Your task to perform on an android device: Show me popular videos on Youtube Image 0: 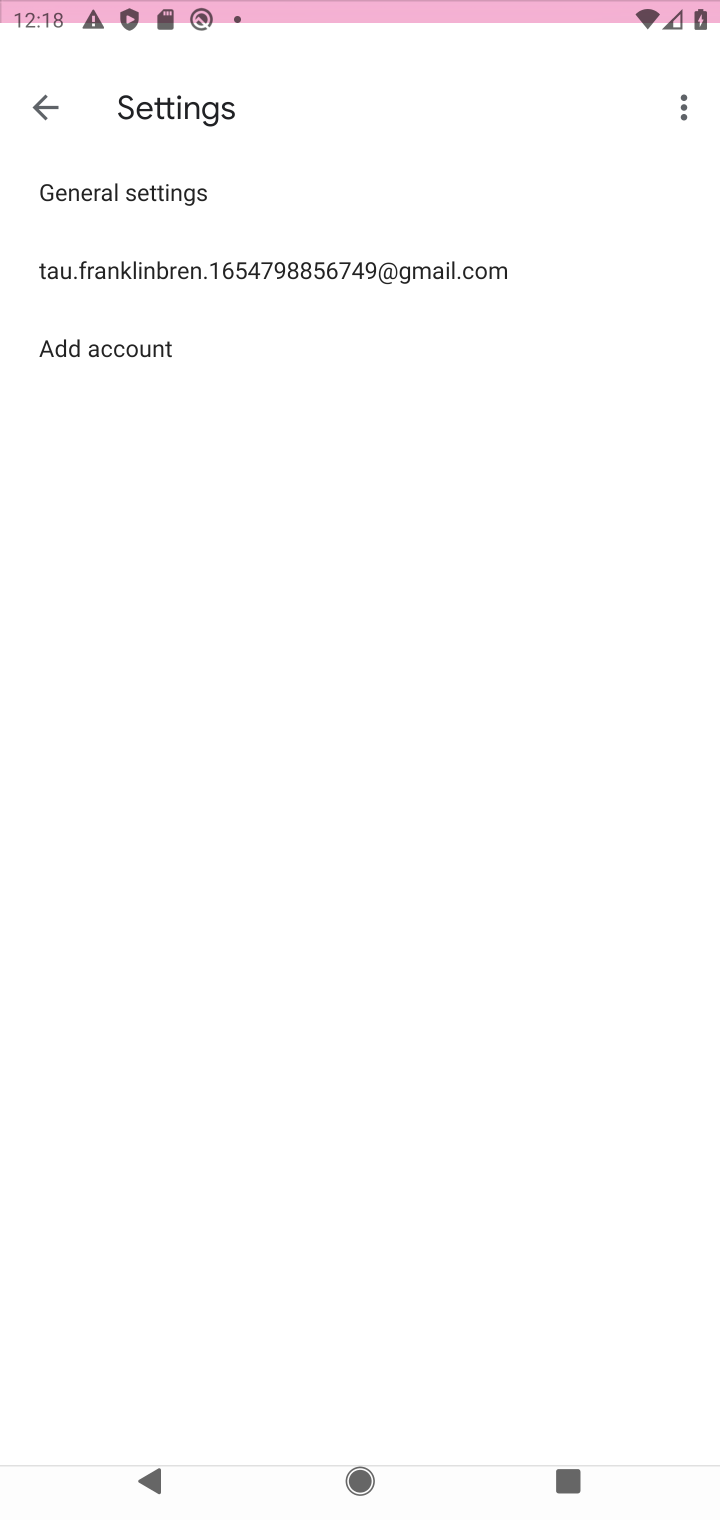
Step 0: press home button
Your task to perform on an android device: Show me popular videos on Youtube Image 1: 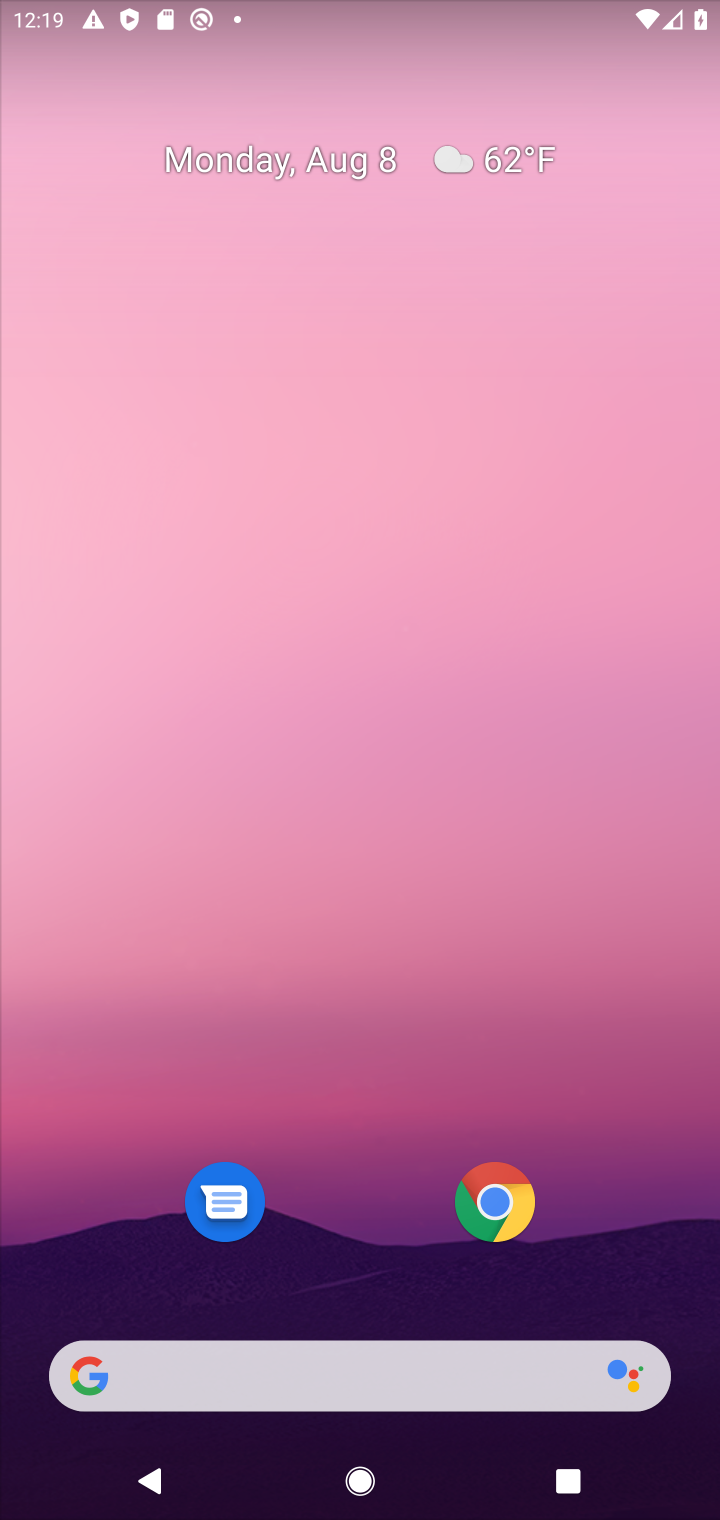
Step 1: drag from (363, 305) to (416, 92)
Your task to perform on an android device: Show me popular videos on Youtube Image 2: 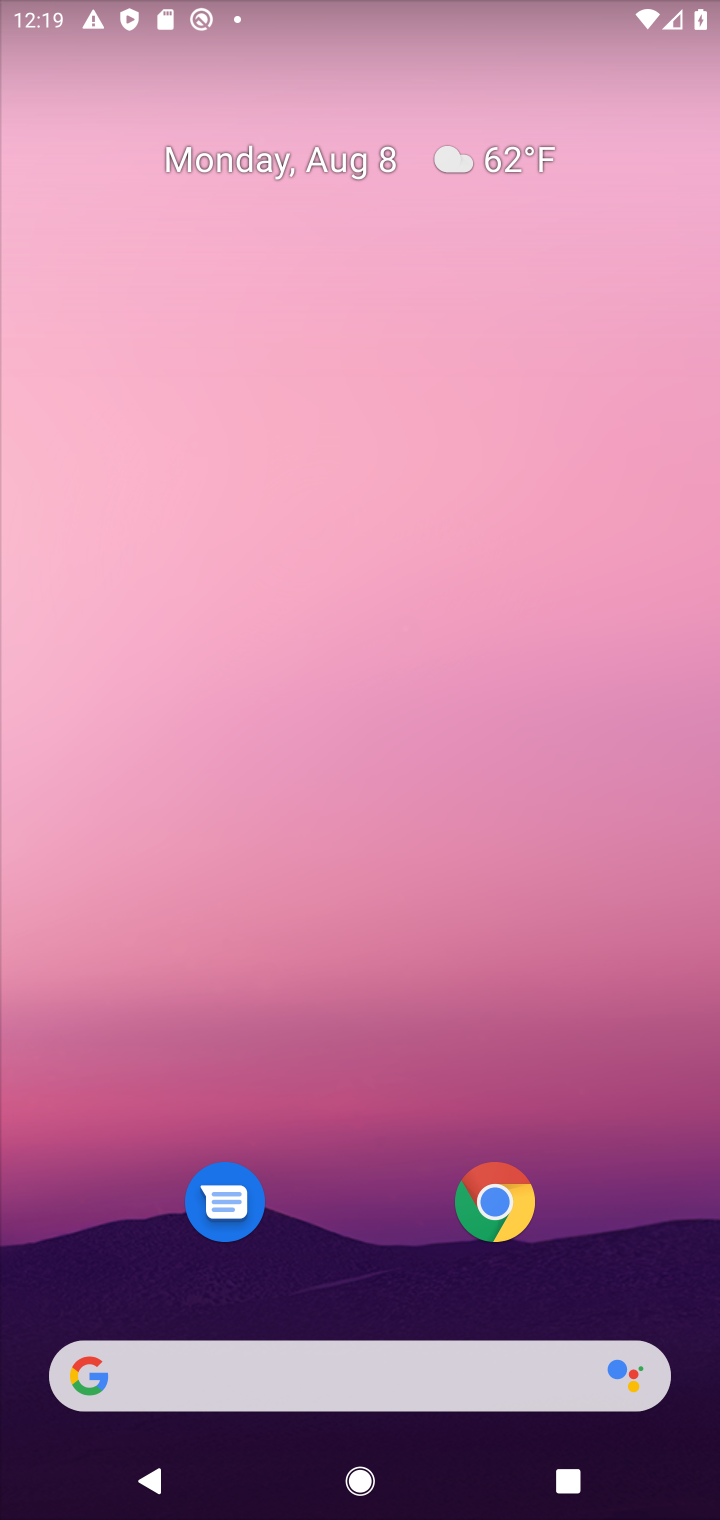
Step 2: drag from (418, 603) to (529, 61)
Your task to perform on an android device: Show me popular videos on Youtube Image 3: 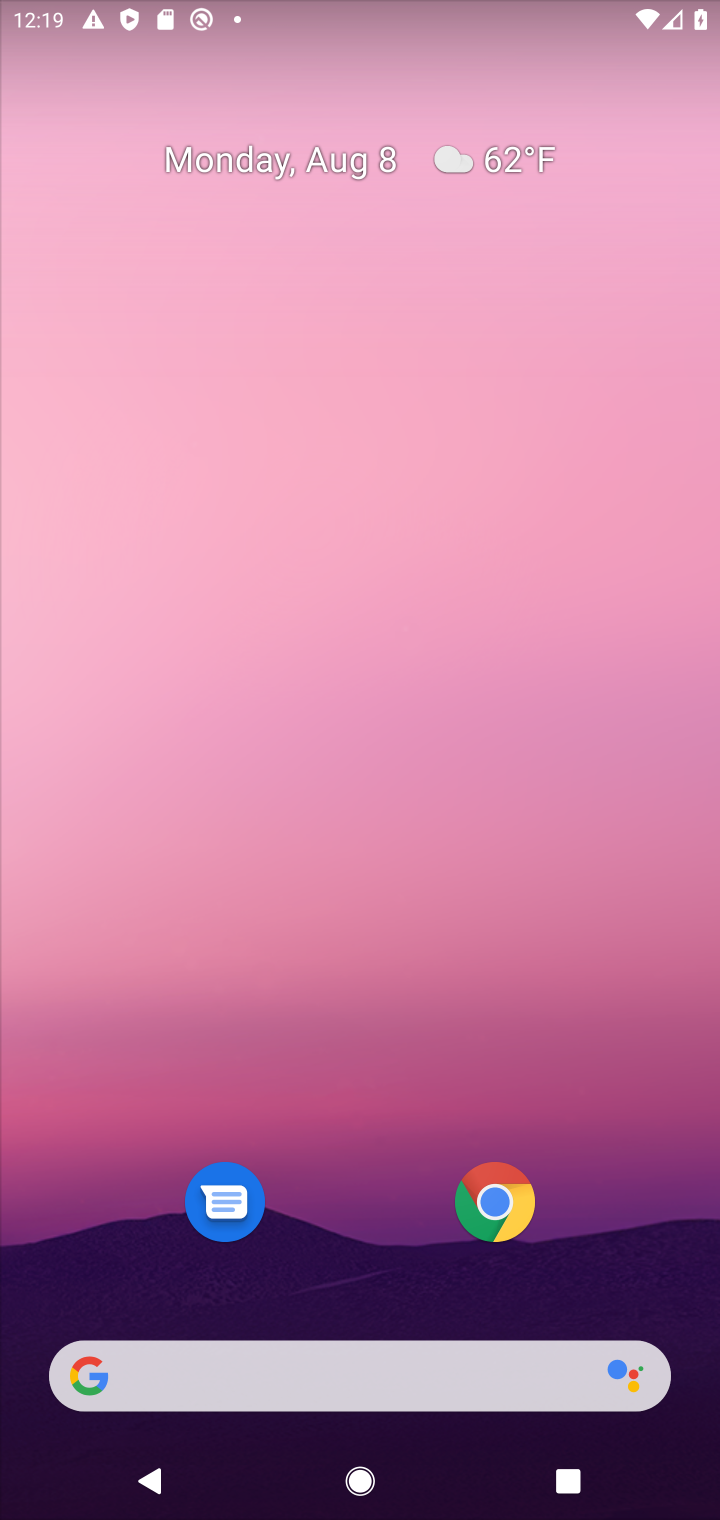
Step 3: click (327, 12)
Your task to perform on an android device: Show me popular videos on Youtube Image 4: 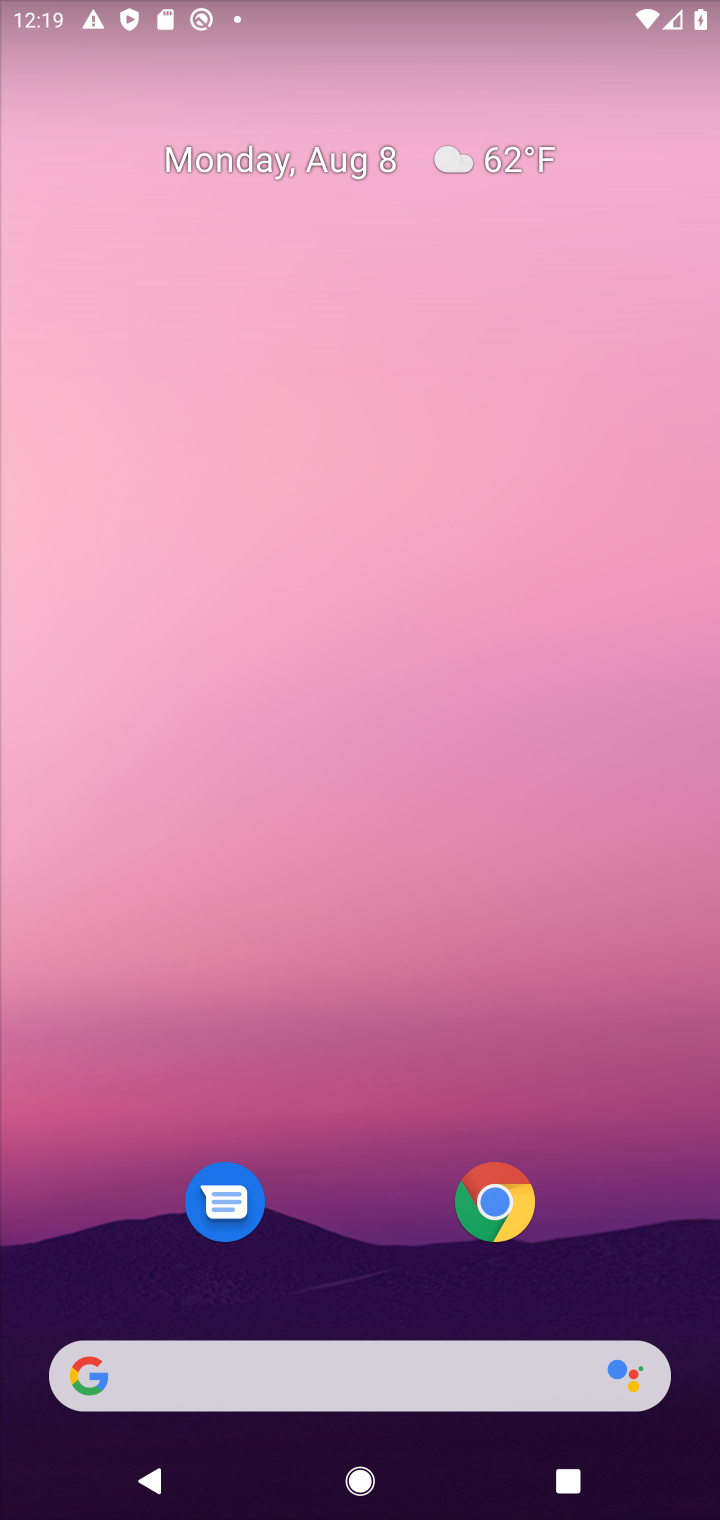
Step 4: drag from (348, 0) to (350, 123)
Your task to perform on an android device: Show me popular videos on Youtube Image 5: 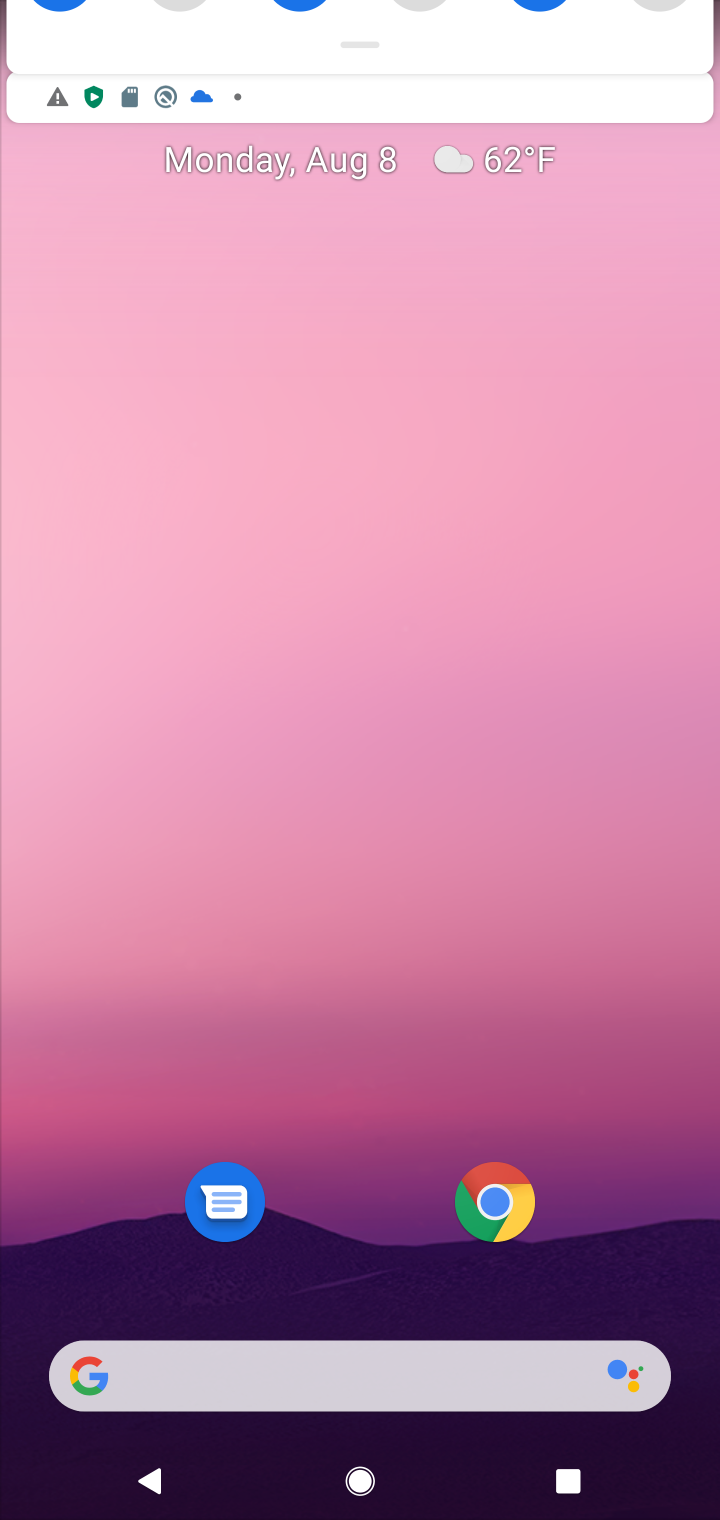
Step 5: drag from (331, 1101) to (333, 75)
Your task to perform on an android device: Show me popular videos on Youtube Image 6: 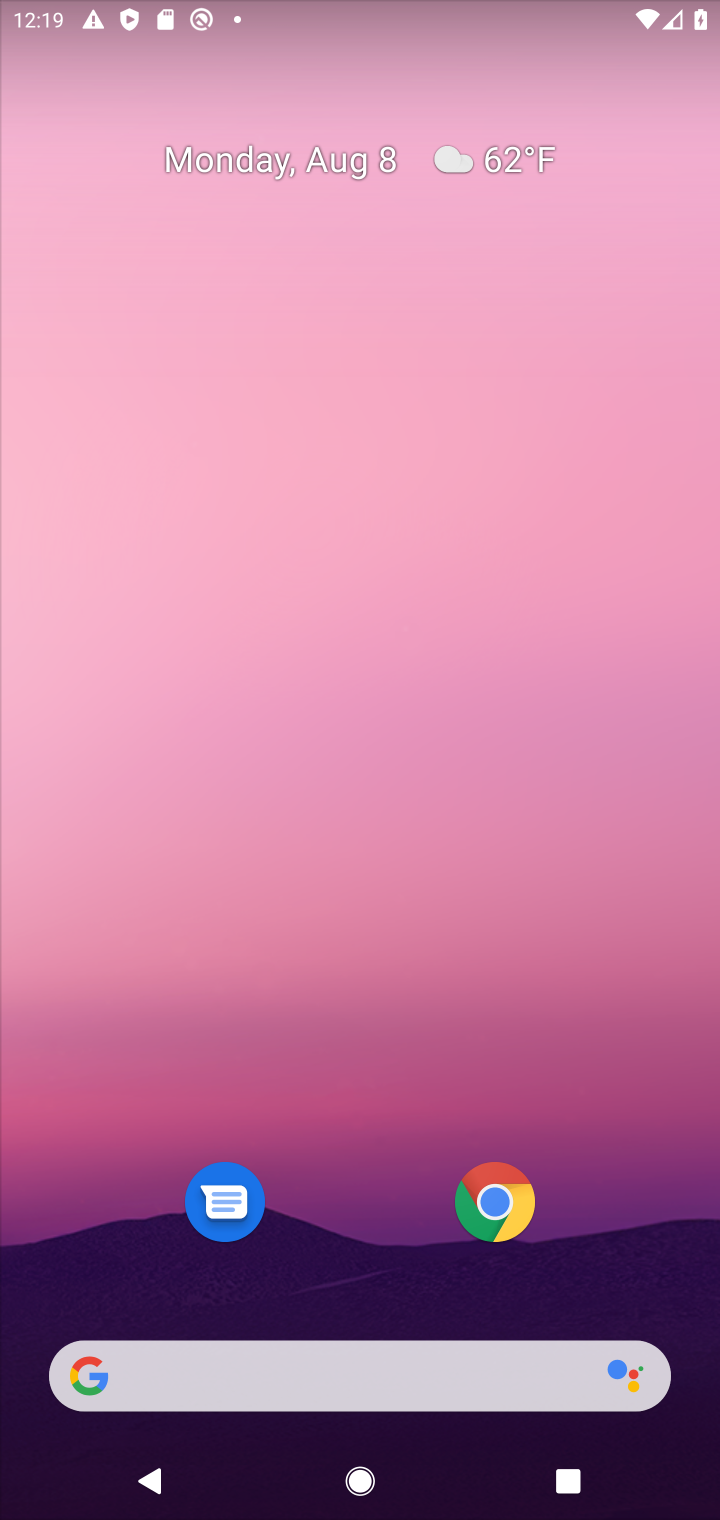
Step 6: drag from (367, 1226) to (350, 67)
Your task to perform on an android device: Show me popular videos on Youtube Image 7: 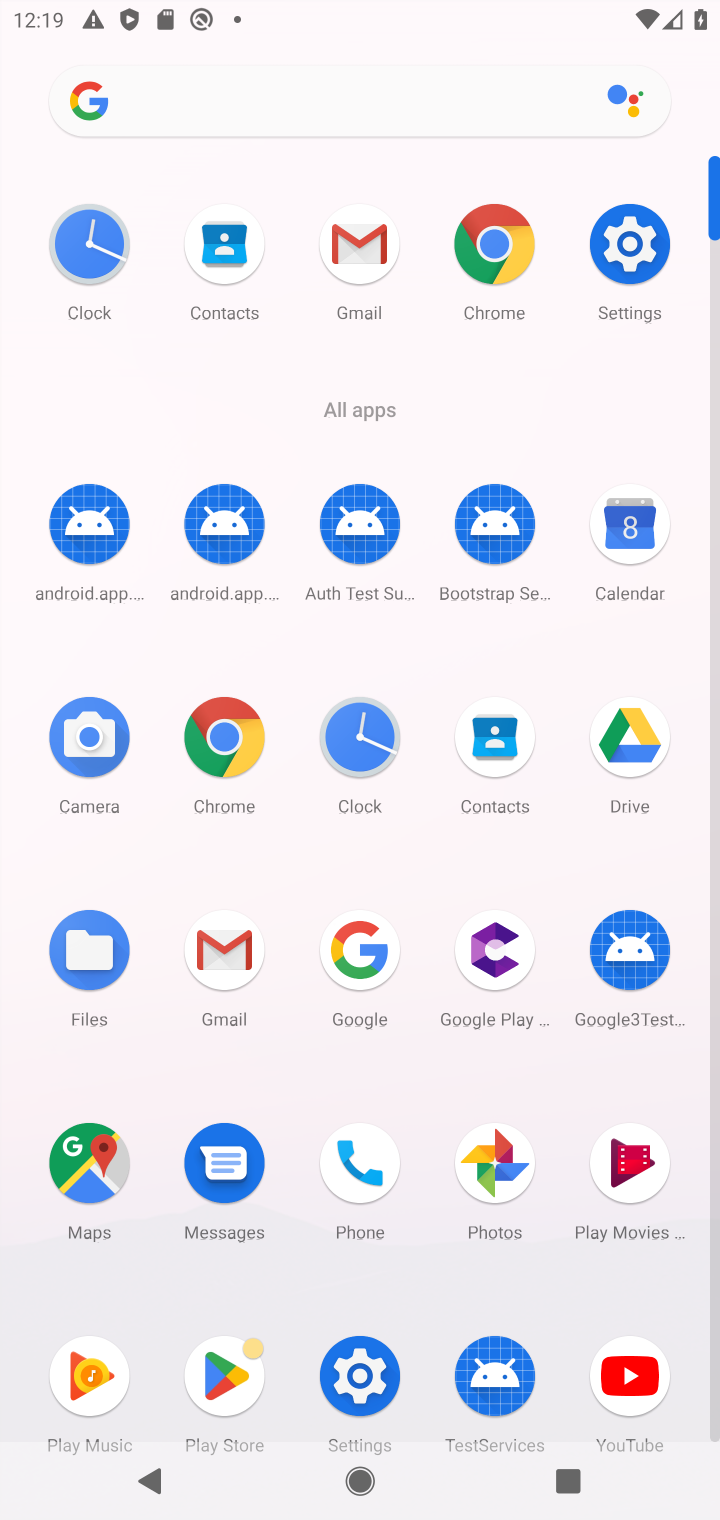
Step 7: click (219, 992)
Your task to perform on an android device: Show me popular videos on Youtube Image 8: 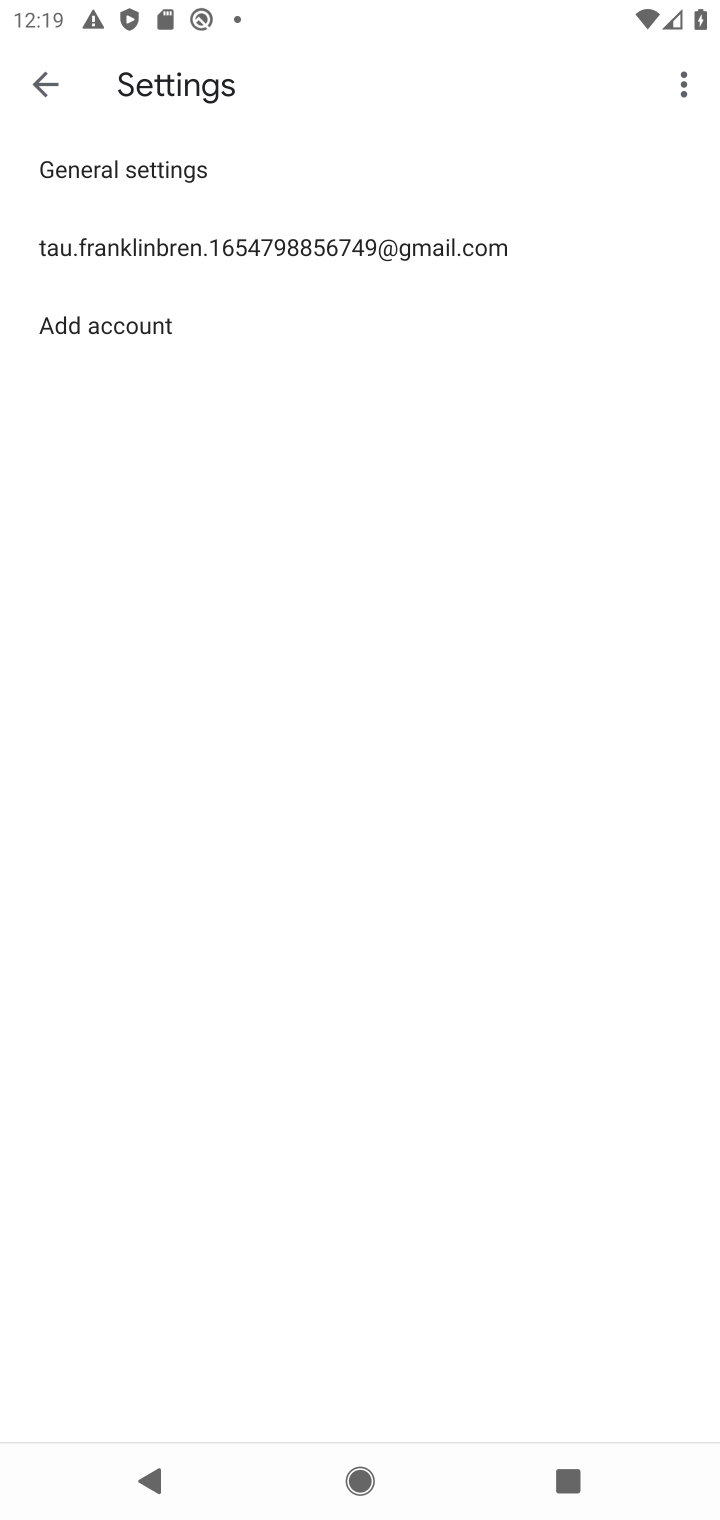
Step 8: press back button
Your task to perform on an android device: Show me popular videos on Youtube Image 9: 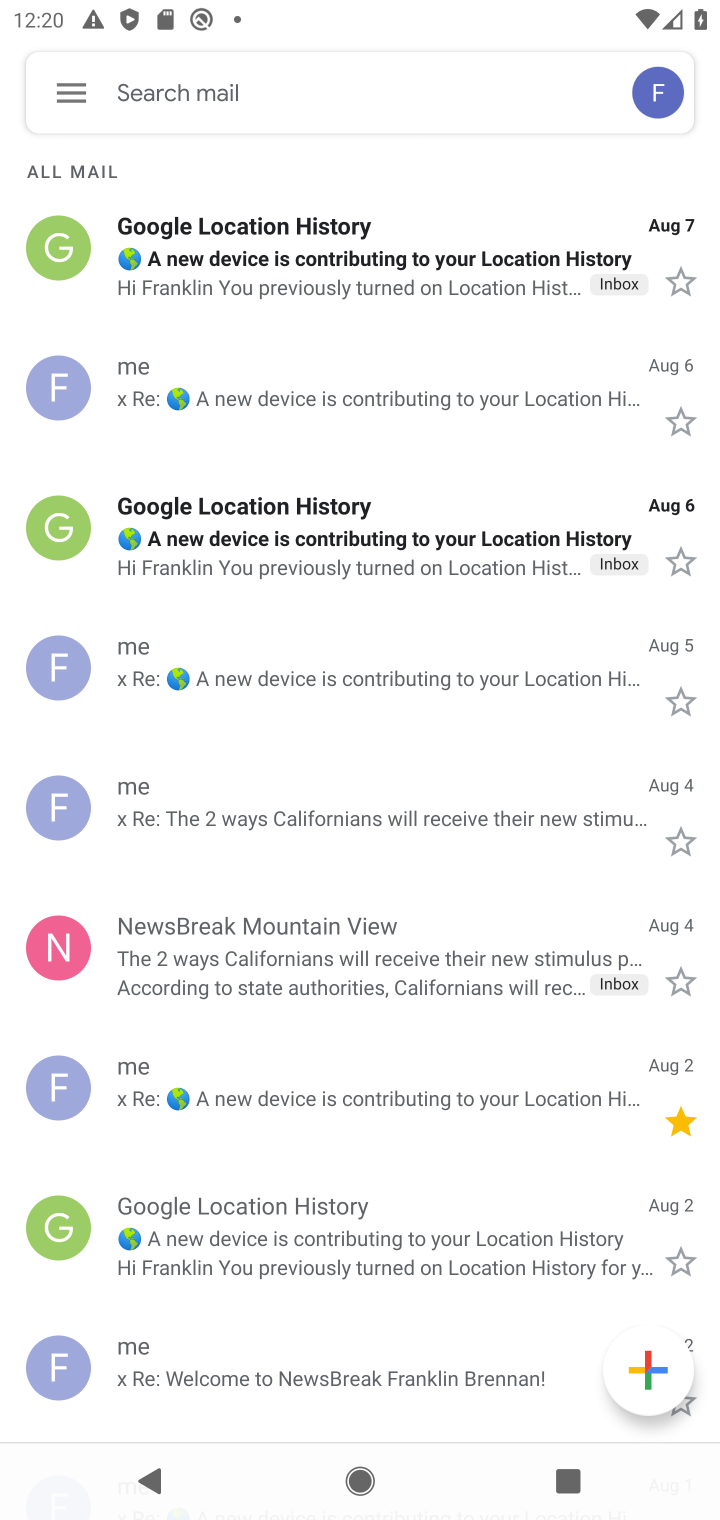
Step 9: press home button
Your task to perform on an android device: Show me popular videos on Youtube Image 10: 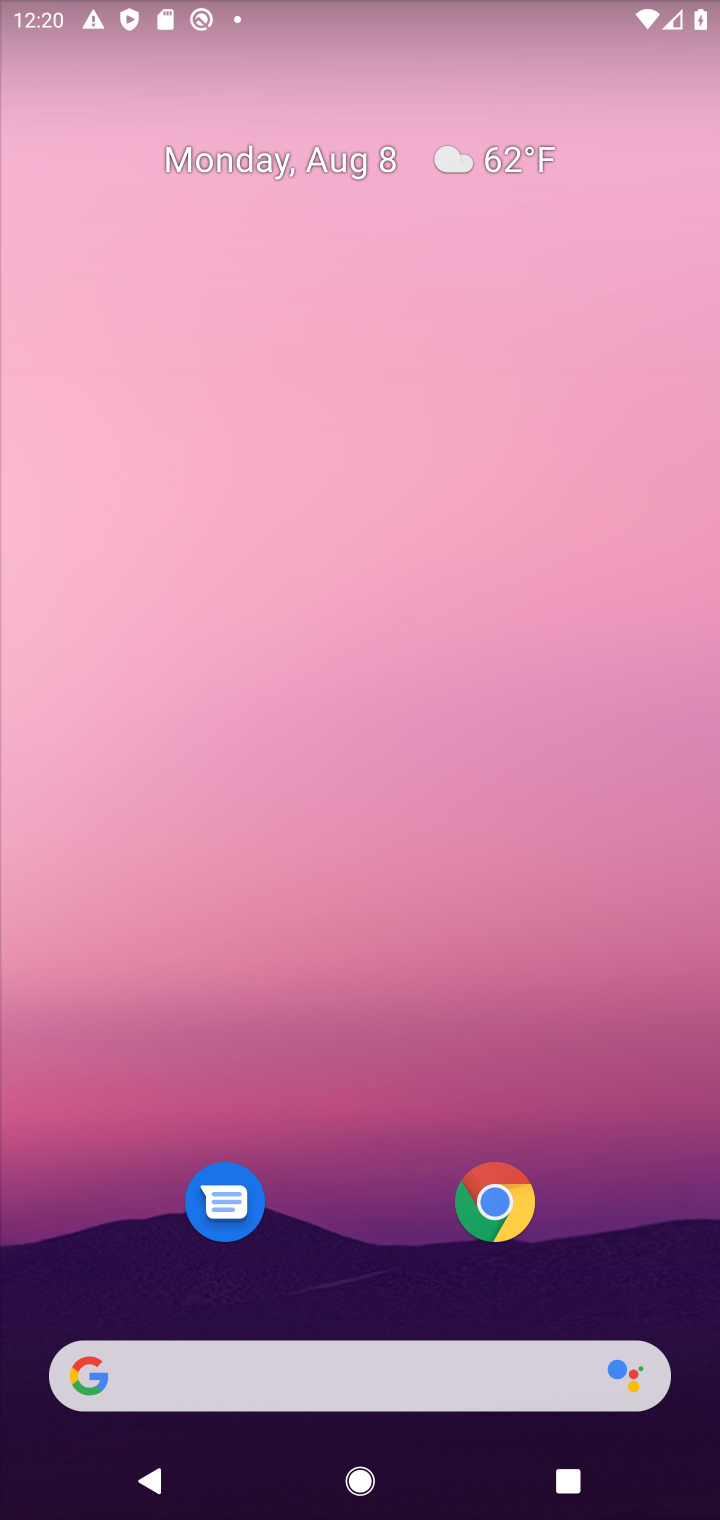
Step 10: drag from (374, 509) to (459, 119)
Your task to perform on an android device: Show me popular videos on Youtube Image 11: 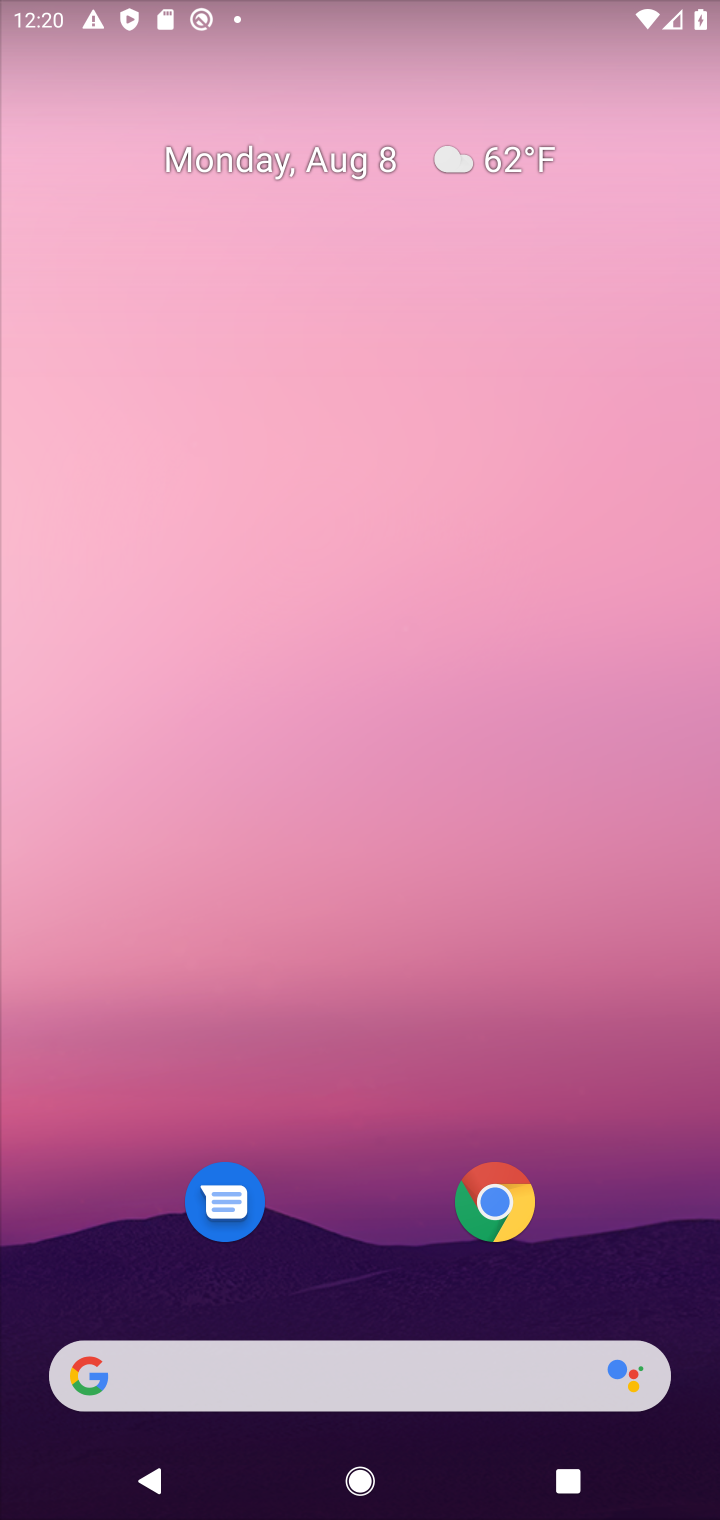
Step 11: drag from (318, 1) to (271, 52)
Your task to perform on an android device: Show me popular videos on Youtube Image 12: 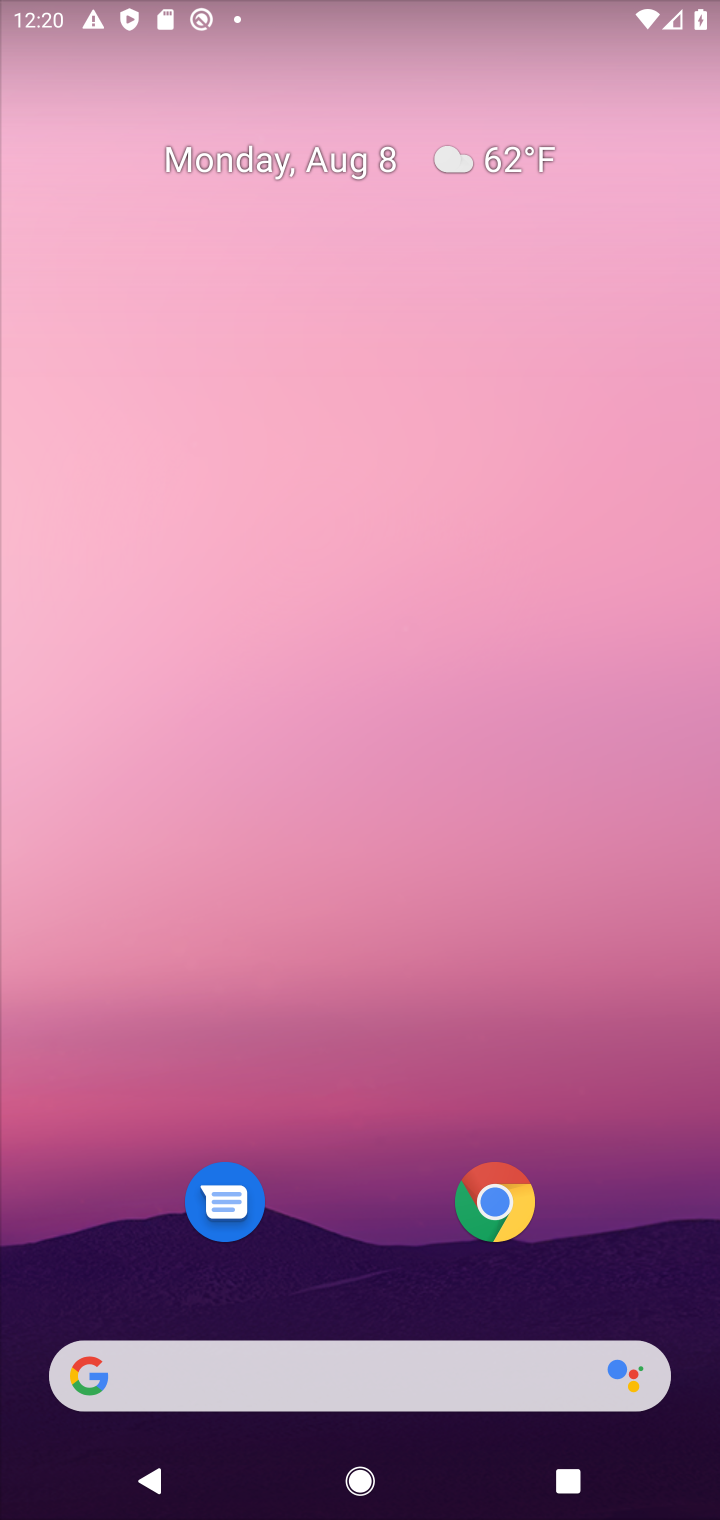
Step 12: drag from (373, 489) to (297, 118)
Your task to perform on an android device: Show me popular videos on Youtube Image 13: 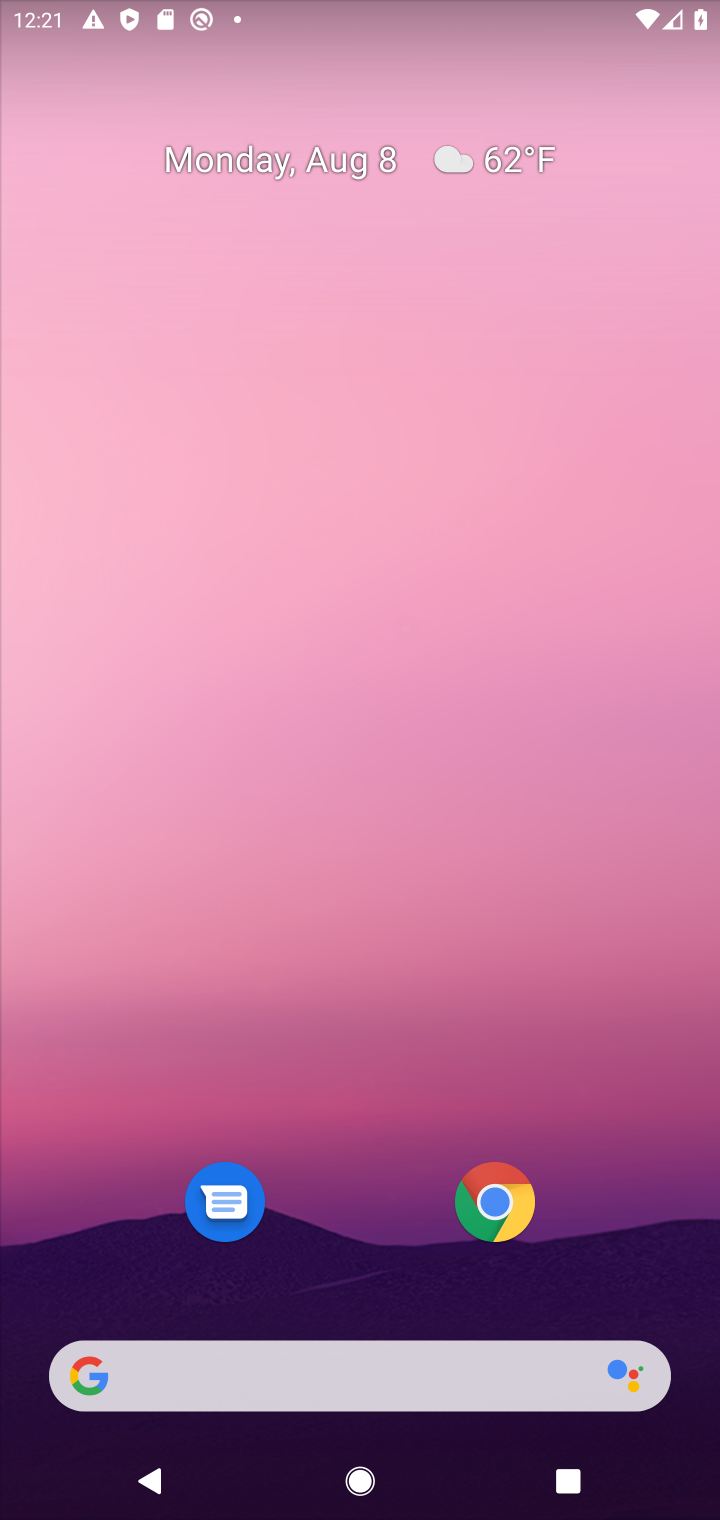
Step 13: click (330, 391)
Your task to perform on an android device: Show me popular videos on Youtube Image 14: 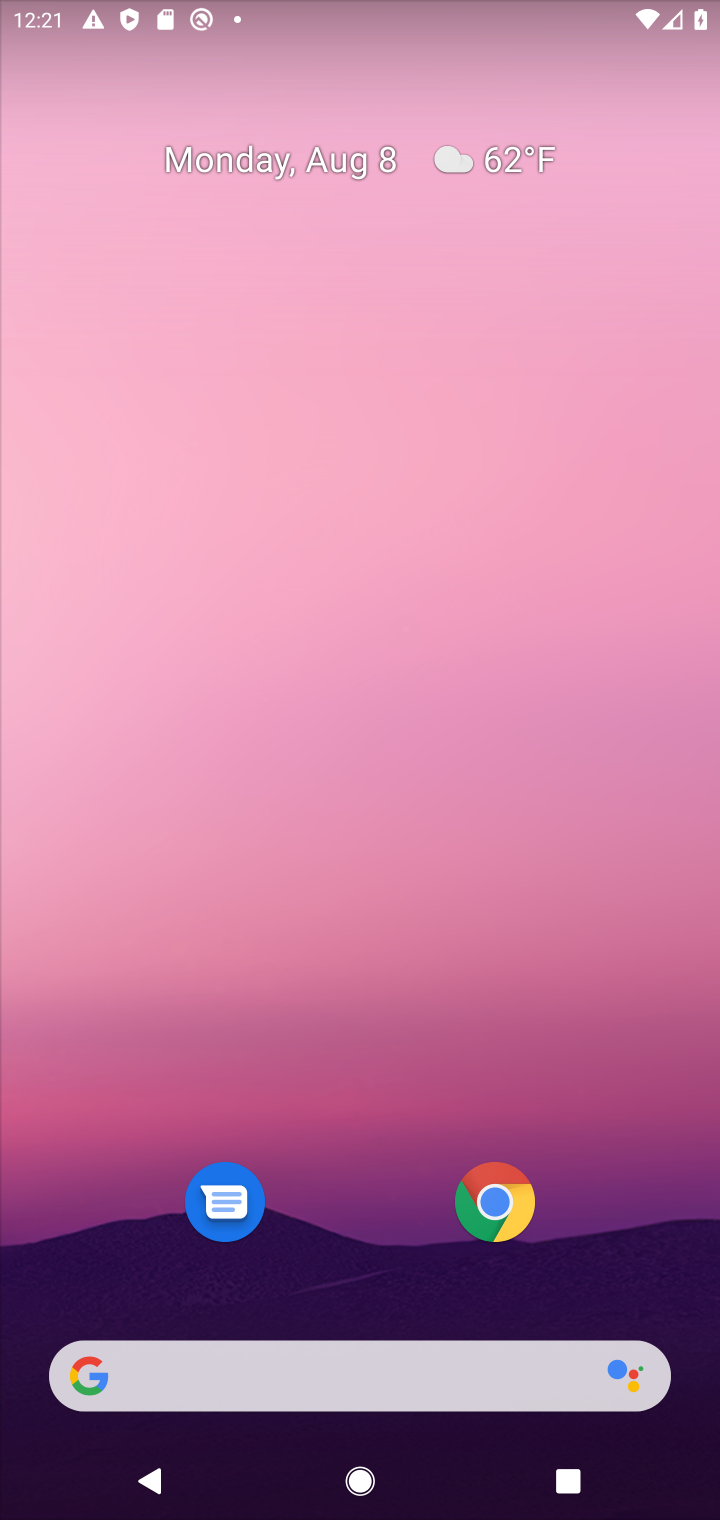
Step 14: drag from (371, 970) to (308, 63)
Your task to perform on an android device: Show me popular videos on Youtube Image 15: 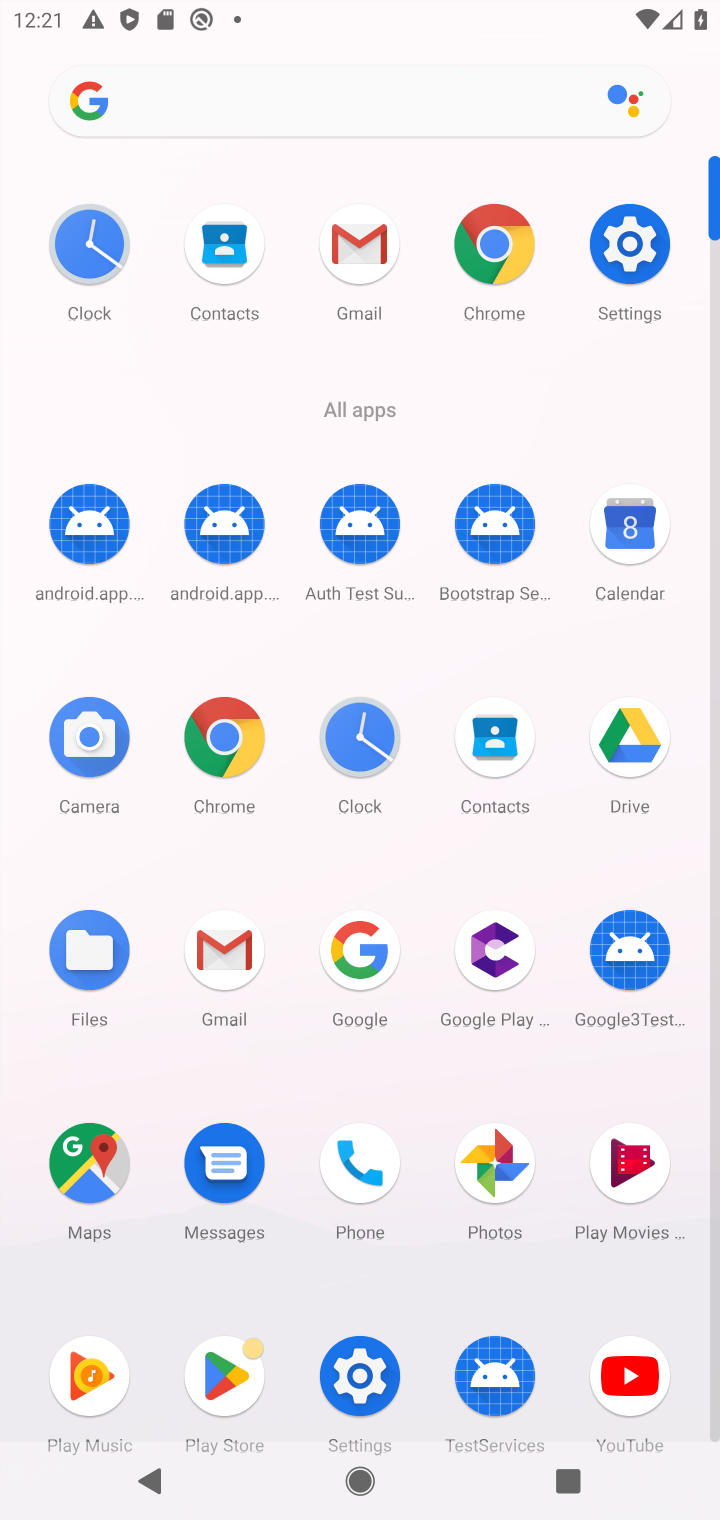
Step 15: click (626, 1386)
Your task to perform on an android device: Show me popular videos on Youtube Image 16: 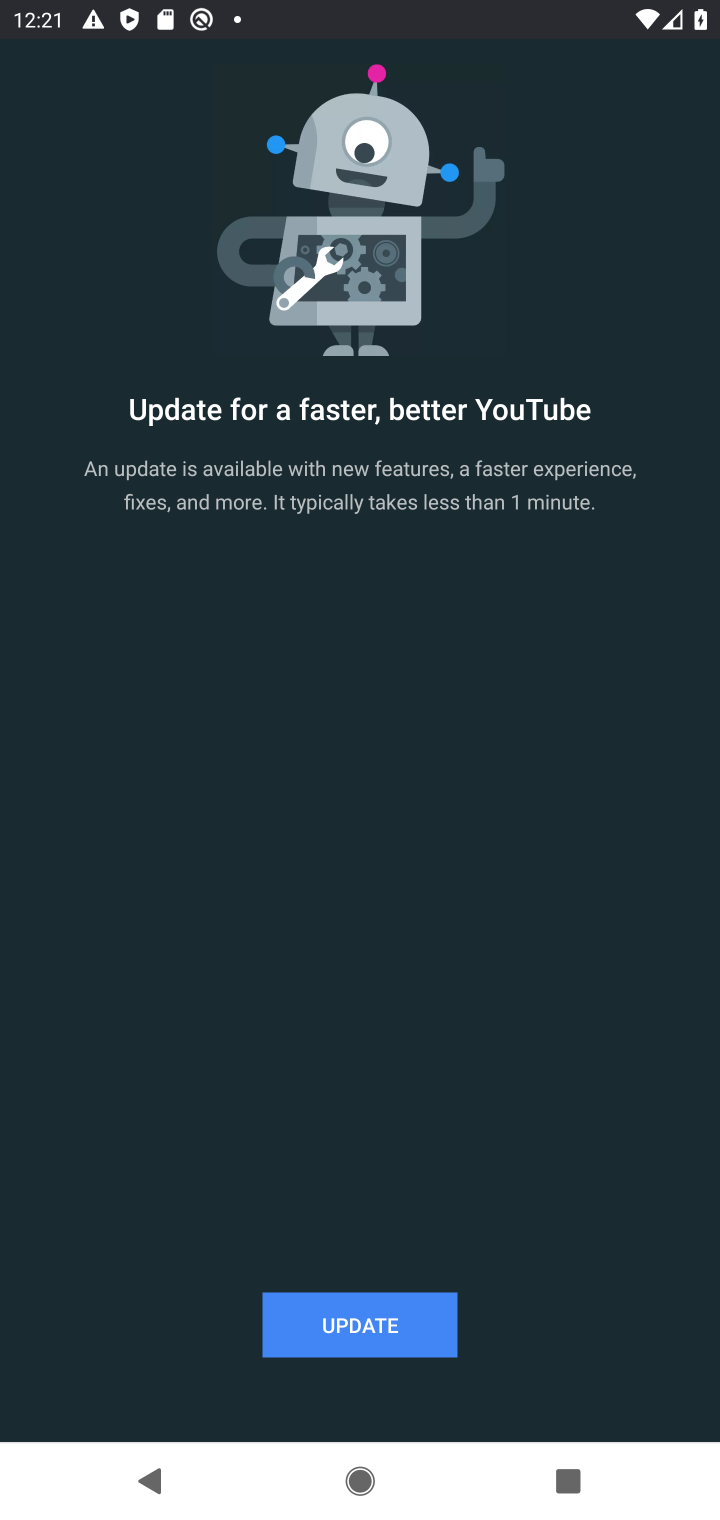
Step 16: click (406, 1330)
Your task to perform on an android device: Show me popular videos on Youtube Image 17: 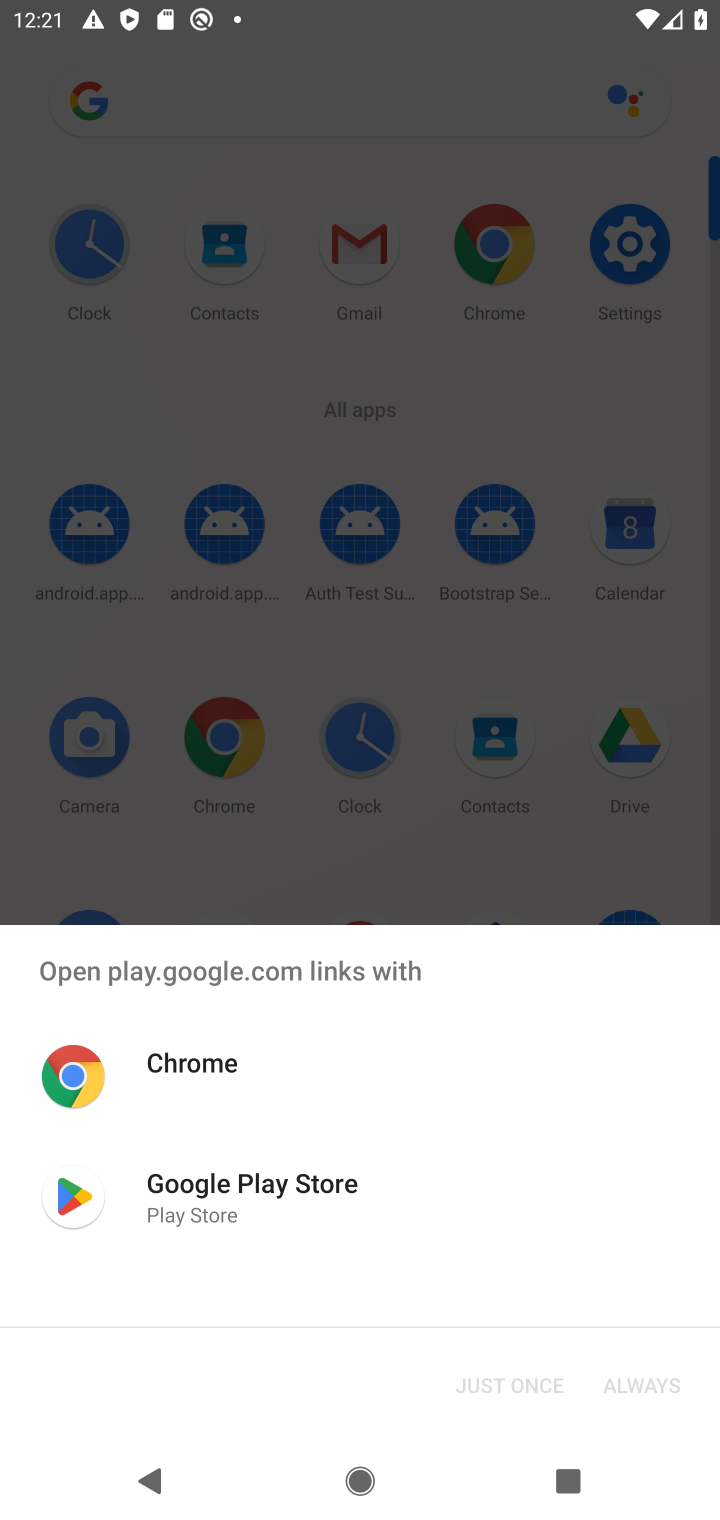
Step 17: click (375, 1223)
Your task to perform on an android device: Show me popular videos on Youtube Image 18: 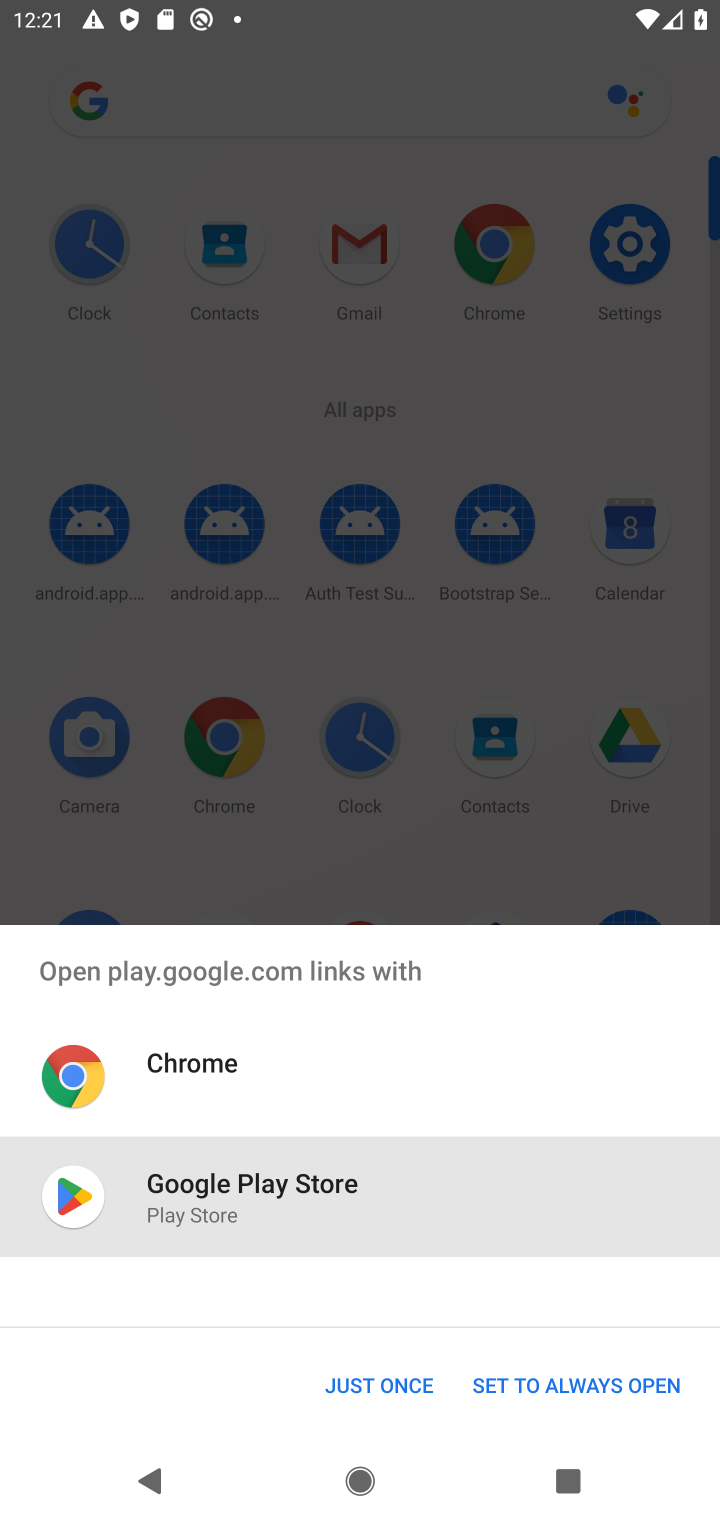
Step 18: click (508, 1387)
Your task to perform on an android device: Show me popular videos on Youtube Image 19: 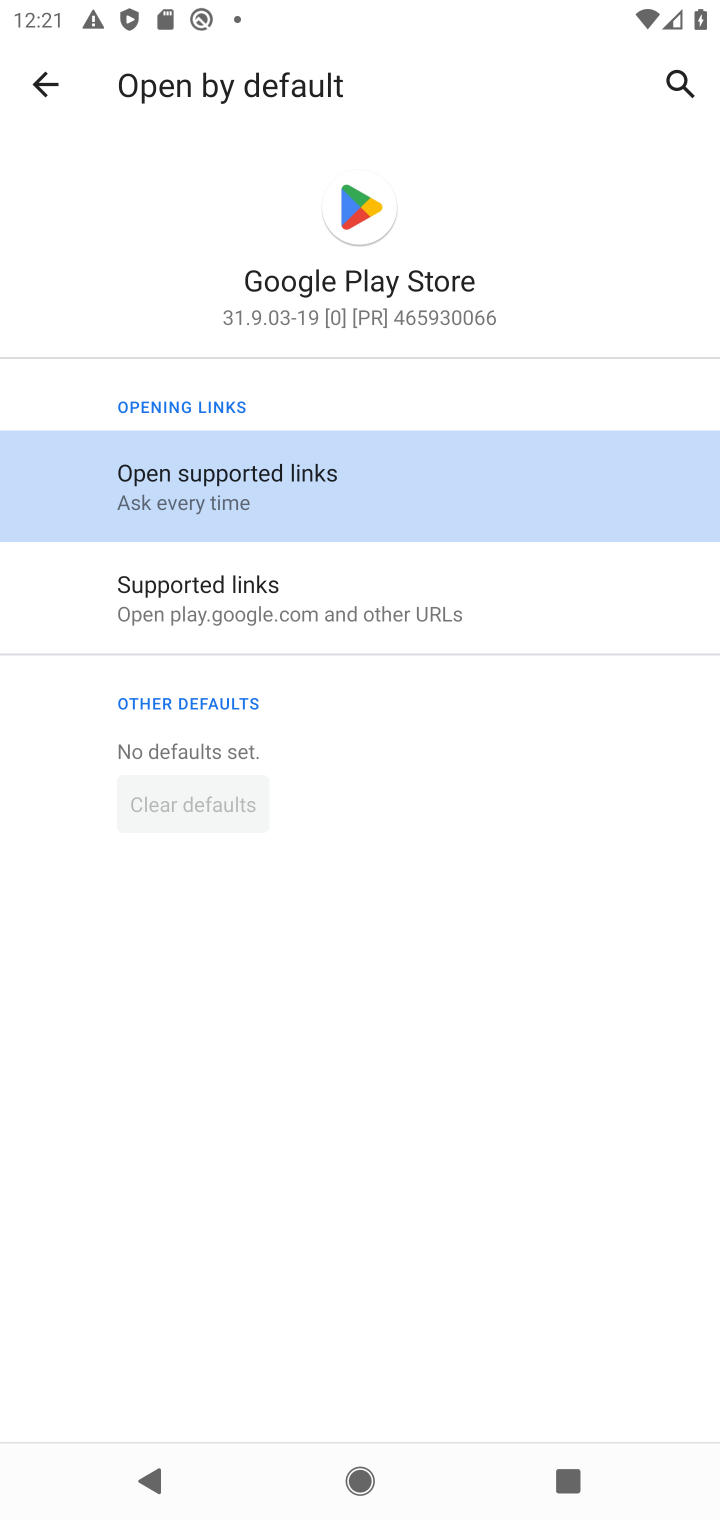
Step 19: click (395, 465)
Your task to perform on an android device: Show me popular videos on Youtube Image 20: 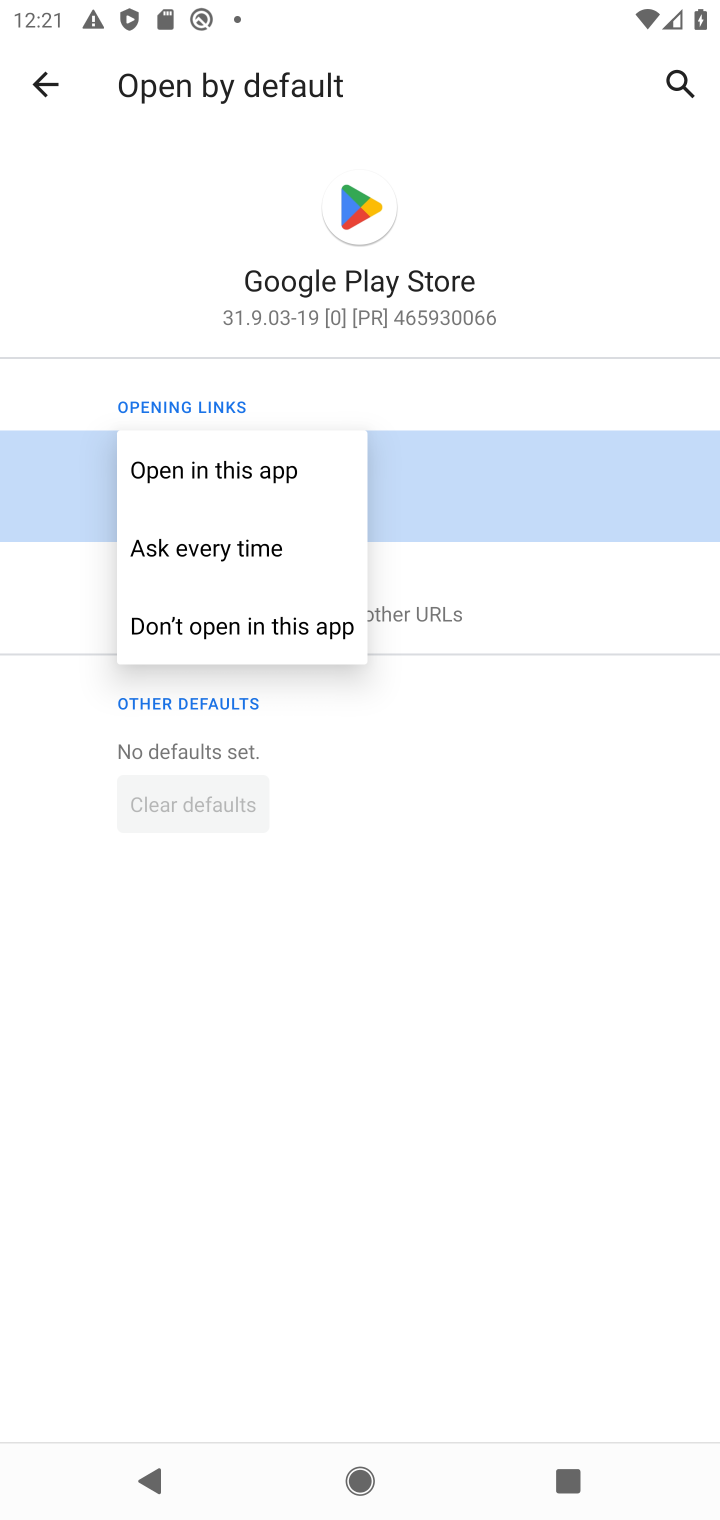
Step 20: click (290, 475)
Your task to perform on an android device: Show me popular videos on Youtube Image 21: 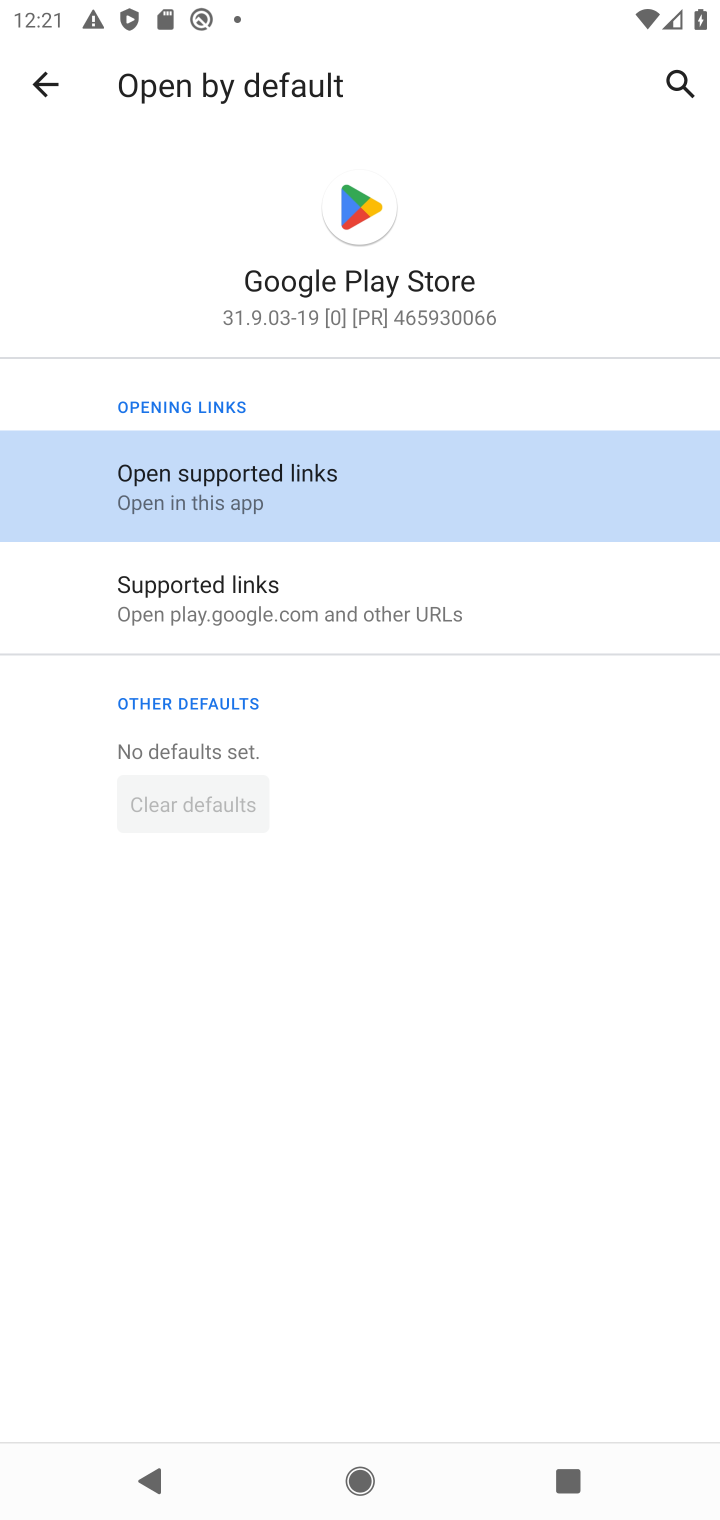
Step 21: click (49, 91)
Your task to perform on an android device: Show me popular videos on Youtube Image 22: 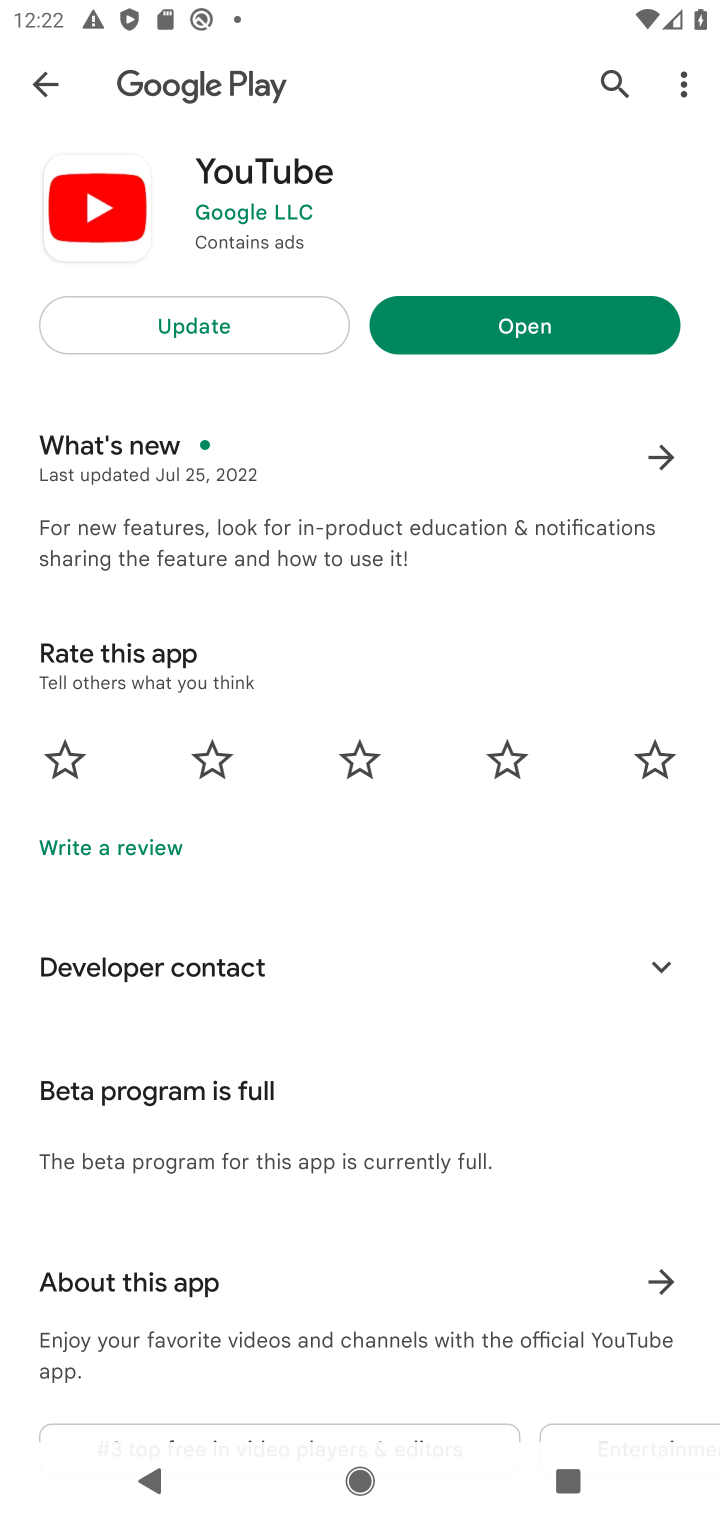
Step 22: click (214, 326)
Your task to perform on an android device: Show me popular videos on Youtube Image 23: 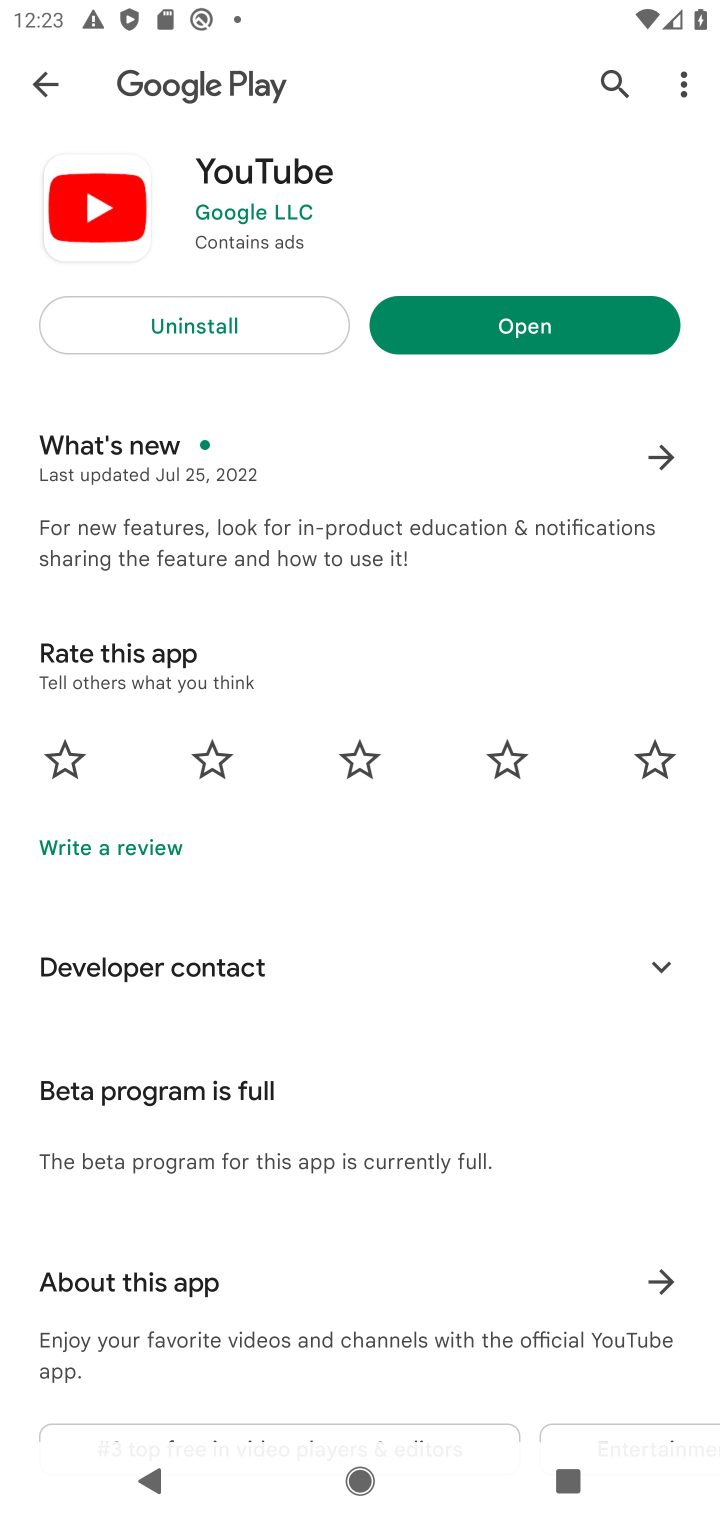
Step 23: click (509, 328)
Your task to perform on an android device: Show me popular videos on Youtube Image 24: 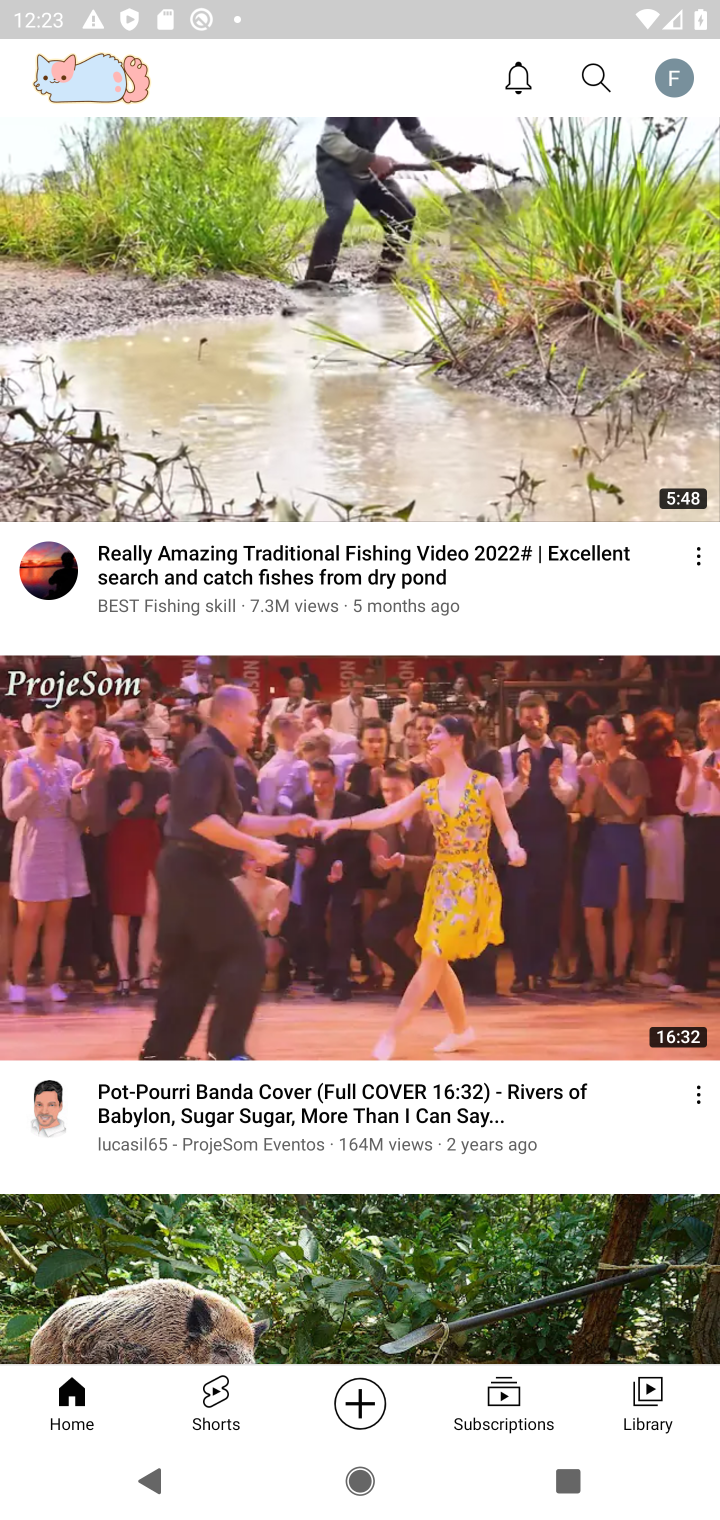
Step 24: task complete